Your task to perform on an android device: see creations saved in the google photos Image 0: 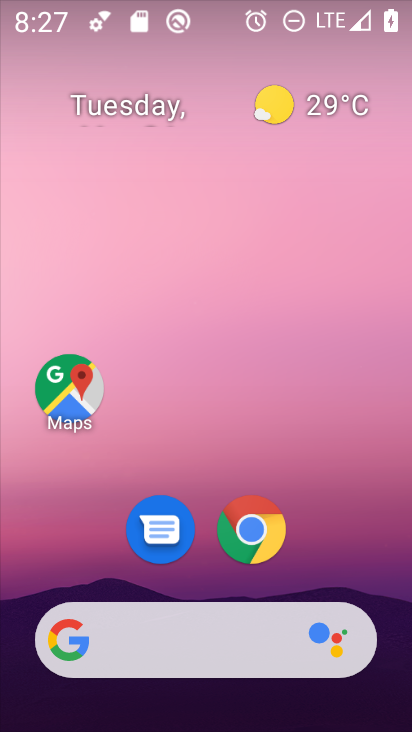
Step 0: drag from (398, 611) to (199, 28)
Your task to perform on an android device: see creations saved in the google photos Image 1: 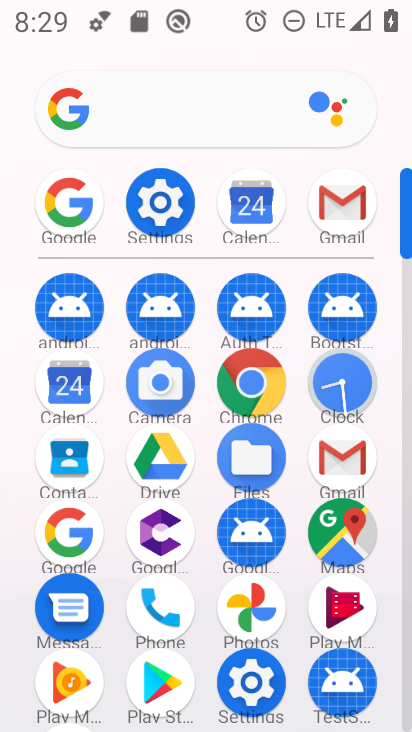
Step 1: click (261, 600)
Your task to perform on an android device: see creations saved in the google photos Image 2: 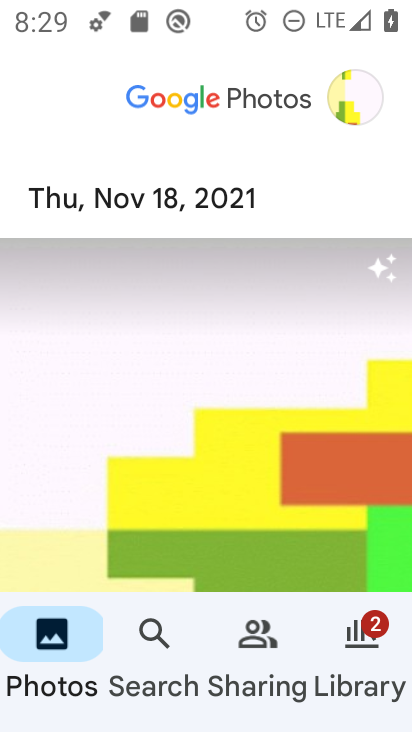
Step 2: click (142, 643)
Your task to perform on an android device: see creations saved in the google photos Image 3: 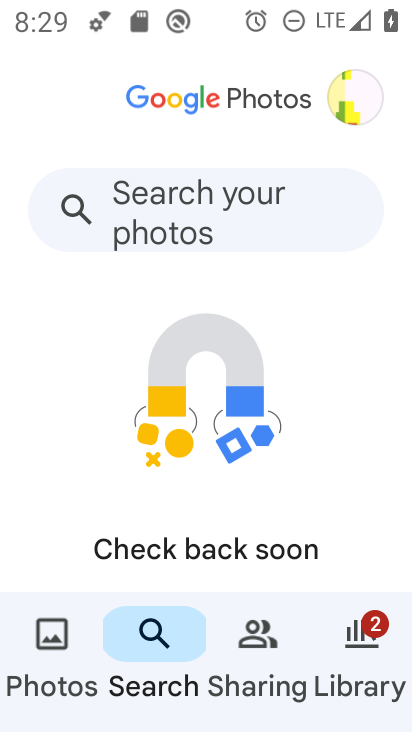
Step 3: drag from (165, 545) to (132, 118)
Your task to perform on an android device: see creations saved in the google photos Image 4: 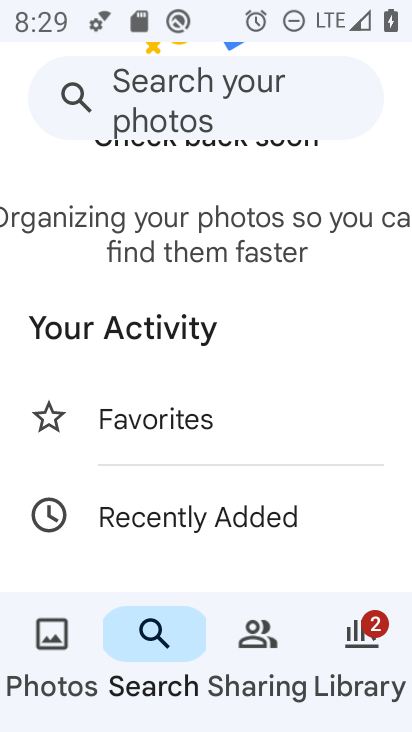
Step 4: drag from (174, 520) to (209, 98)
Your task to perform on an android device: see creations saved in the google photos Image 5: 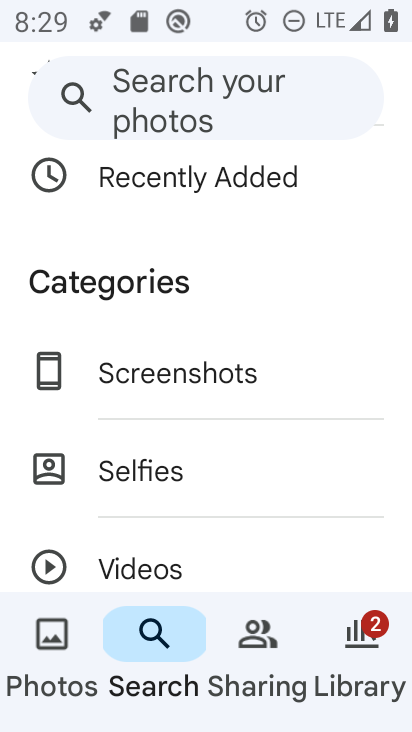
Step 5: drag from (131, 531) to (160, 86)
Your task to perform on an android device: see creations saved in the google photos Image 6: 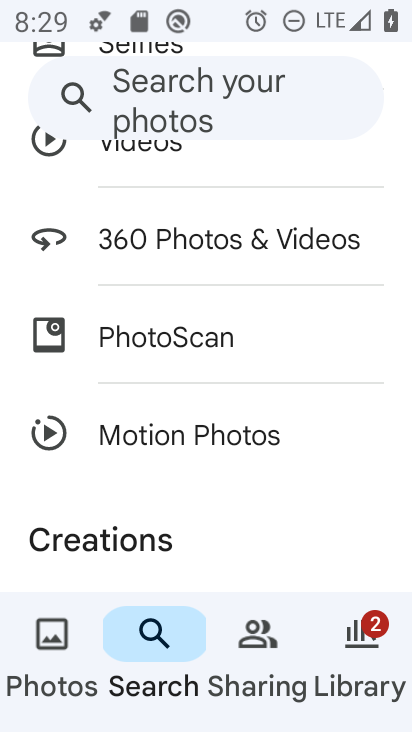
Step 6: drag from (164, 538) to (196, 211)
Your task to perform on an android device: see creations saved in the google photos Image 7: 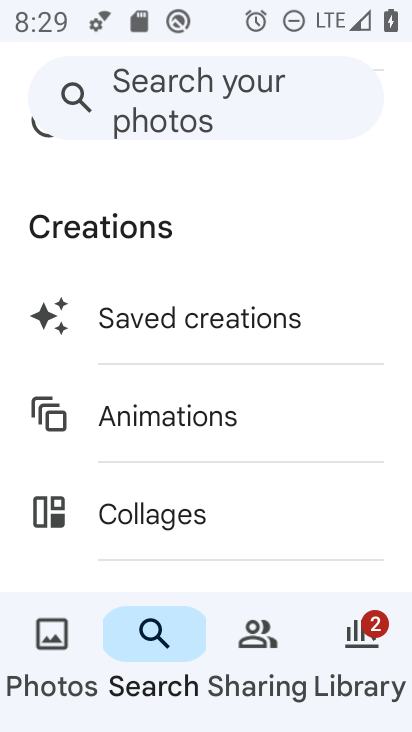
Step 7: click (186, 293)
Your task to perform on an android device: see creations saved in the google photos Image 8: 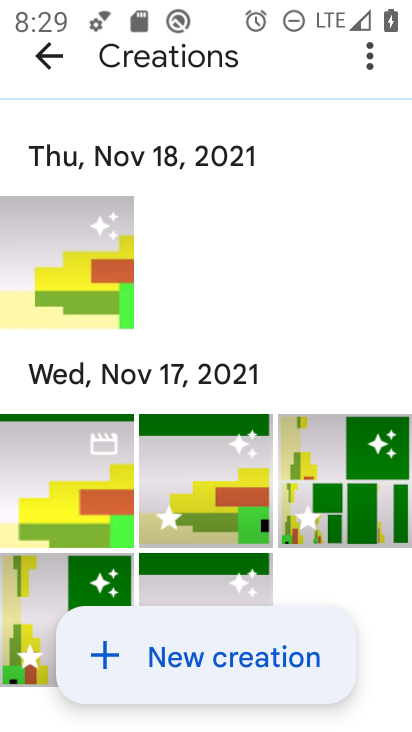
Step 8: task complete